Your task to perform on an android device: delete a single message in the gmail app Image 0: 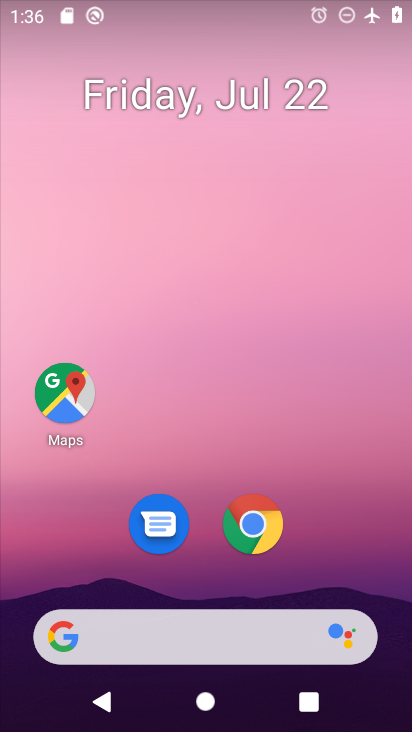
Step 0: drag from (336, 549) to (330, 23)
Your task to perform on an android device: delete a single message in the gmail app Image 1: 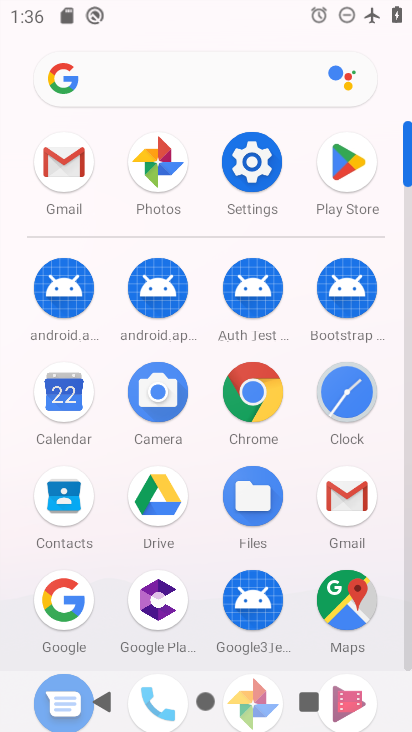
Step 1: click (74, 158)
Your task to perform on an android device: delete a single message in the gmail app Image 2: 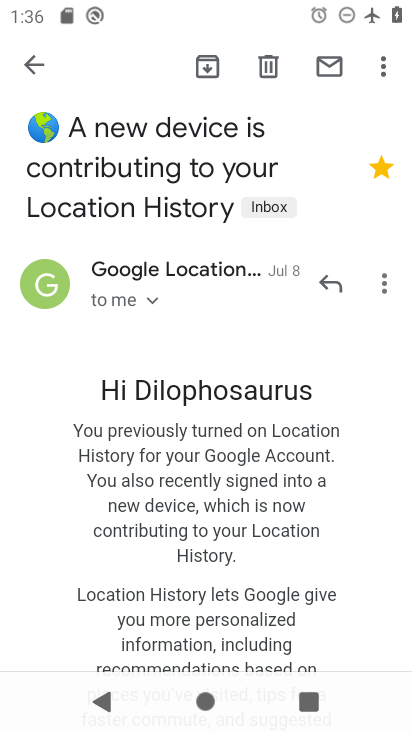
Step 2: click (263, 70)
Your task to perform on an android device: delete a single message in the gmail app Image 3: 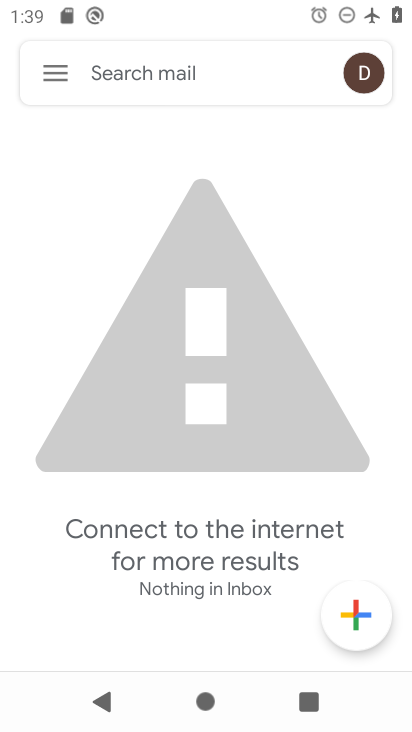
Step 3: task complete